Your task to perform on an android device: turn off translation in the chrome app Image 0: 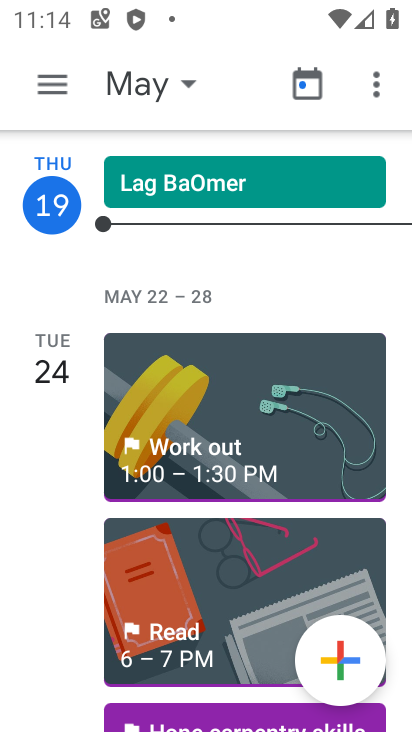
Step 0: press home button
Your task to perform on an android device: turn off translation in the chrome app Image 1: 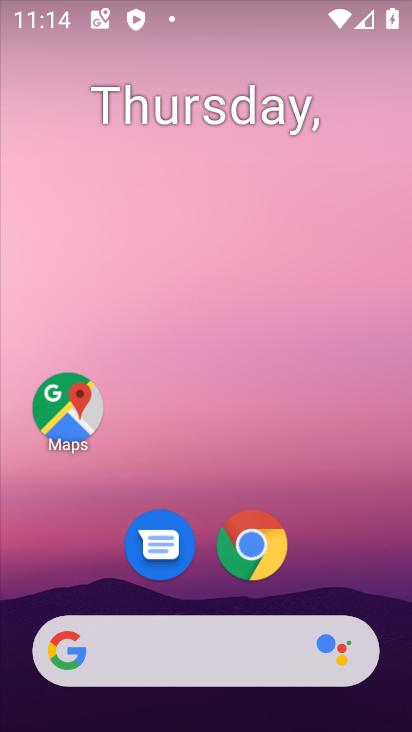
Step 1: drag from (205, 385) to (212, 115)
Your task to perform on an android device: turn off translation in the chrome app Image 2: 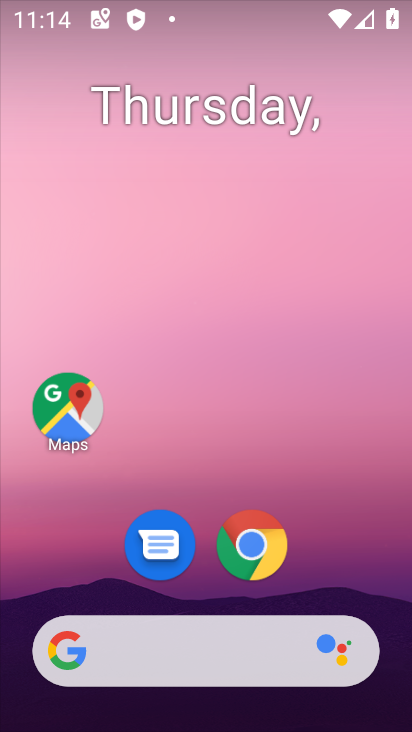
Step 2: drag from (188, 587) to (230, 108)
Your task to perform on an android device: turn off translation in the chrome app Image 3: 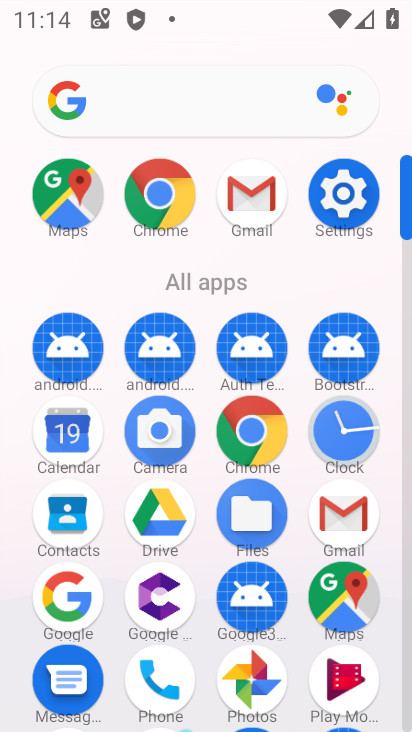
Step 3: click (78, 540)
Your task to perform on an android device: turn off translation in the chrome app Image 4: 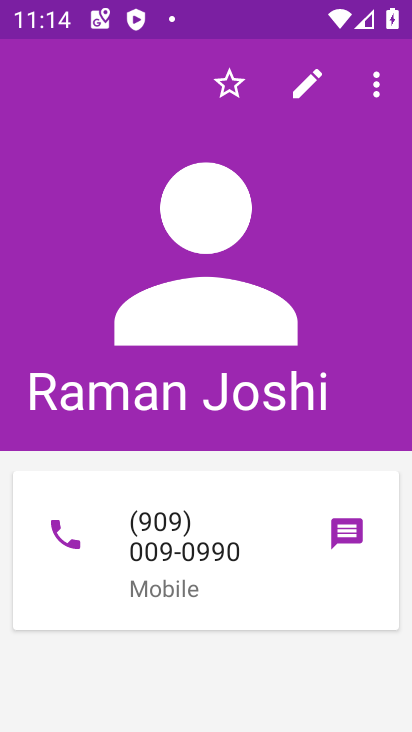
Step 4: click (386, 98)
Your task to perform on an android device: turn off translation in the chrome app Image 5: 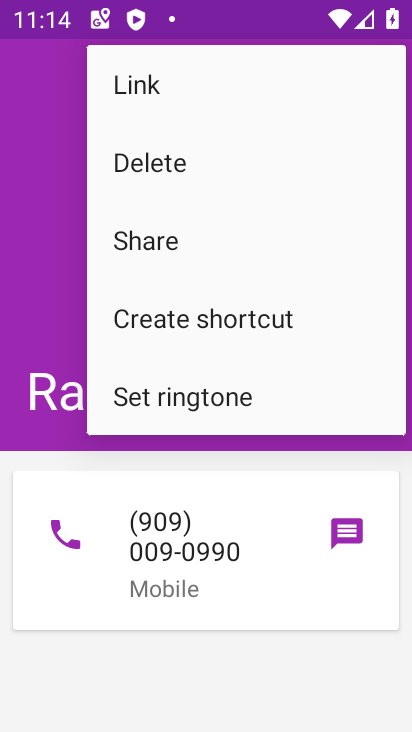
Step 5: press back button
Your task to perform on an android device: turn off translation in the chrome app Image 6: 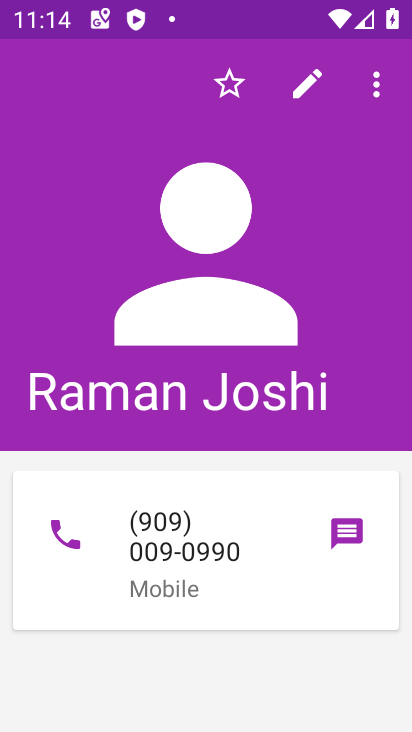
Step 6: press back button
Your task to perform on an android device: turn off translation in the chrome app Image 7: 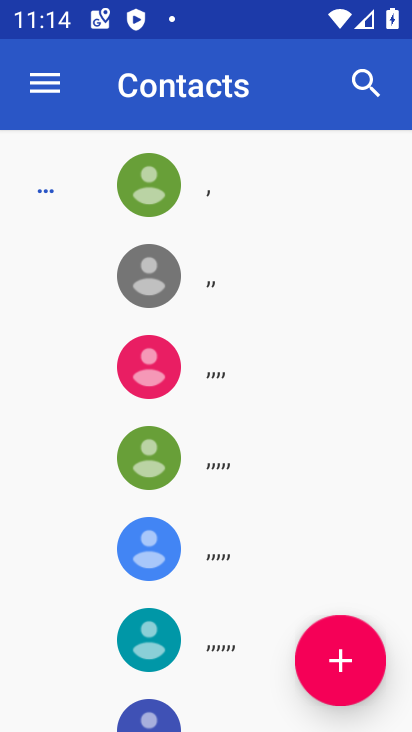
Step 7: click (338, 666)
Your task to perform on an android device: turn off translation in the chrome app Image 8: 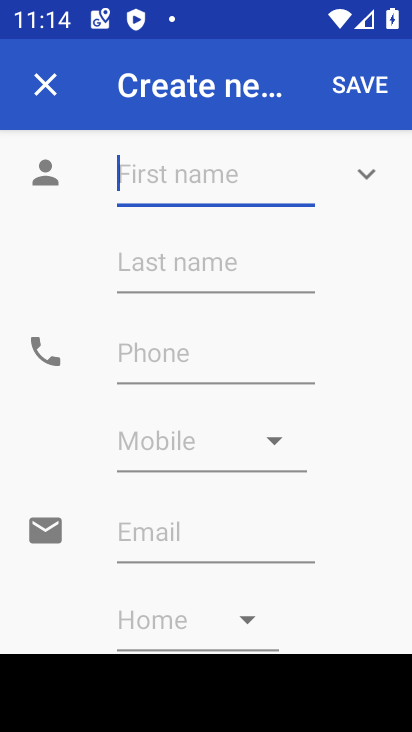
Step 8: click (230, 175)
Your task to perform on an android device: turn off translation in the chrome app Image 9: 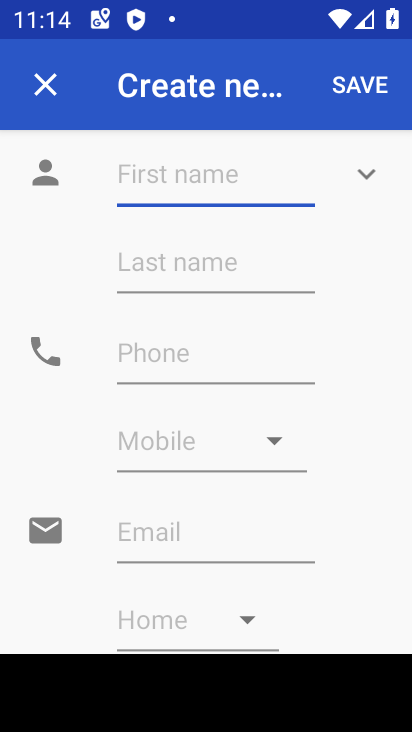
Step 9: type "Ajay"
Your task to perform on an android device: turn off translation in the chrome app Image 10: 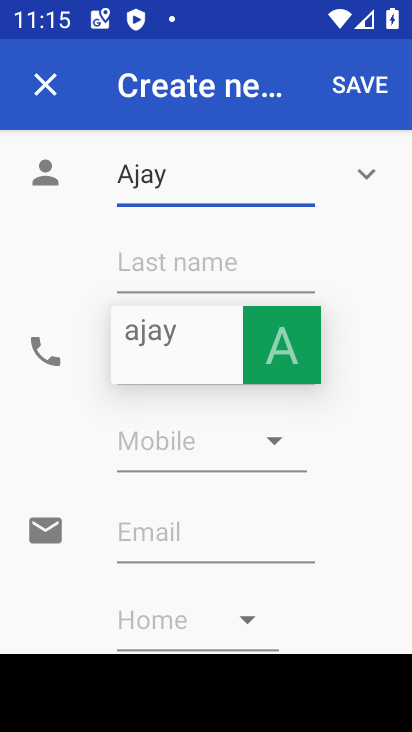
Step 10: click (281, 290)
Your task to perform on an android device: turn off translation in the chrome app Image 11: 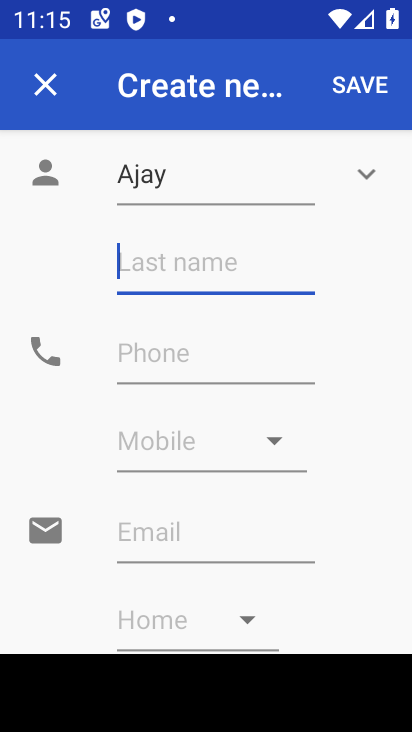
Step 11: type "Khoshla"
Your task to perform on an android device: turn off translation in the chrome app Image 12: 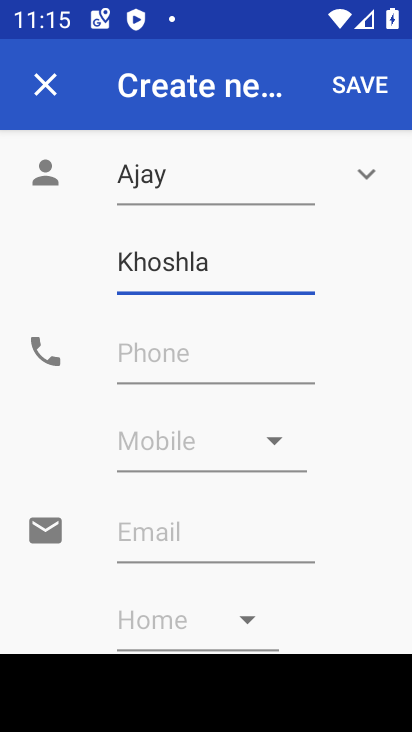
Step 12: click (203, 371)
Your task to perform on an android device: turn off translation in the chrome app Image 13: 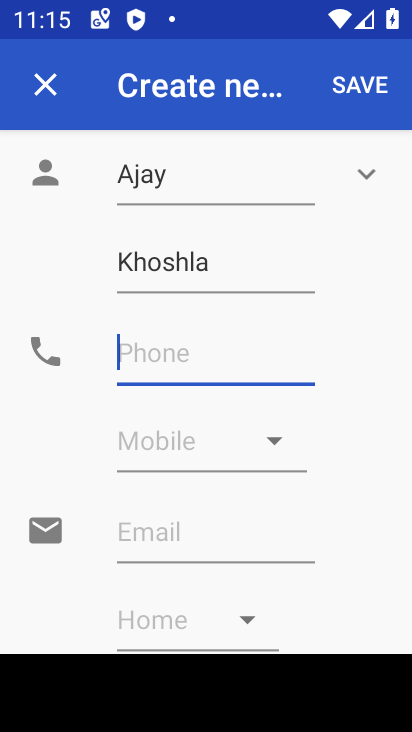
Step 13: type "8789878900"
Your task to perform on an android device: turn off translation in the chrome app Image 14: 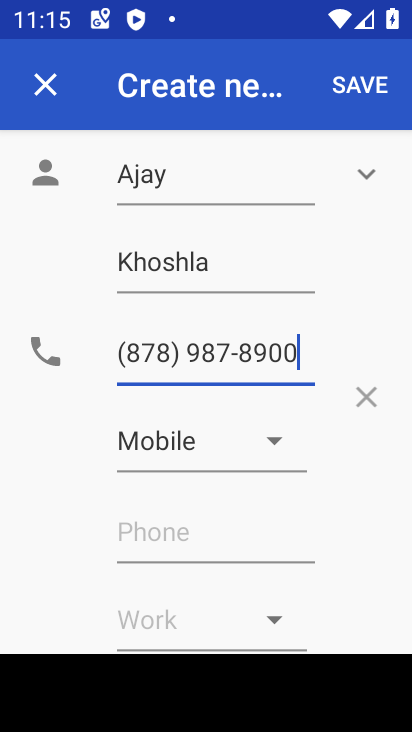
Step 14: click (361, 78)
Your task to perform on an android device: turn off translation in the chrome app Image 15: 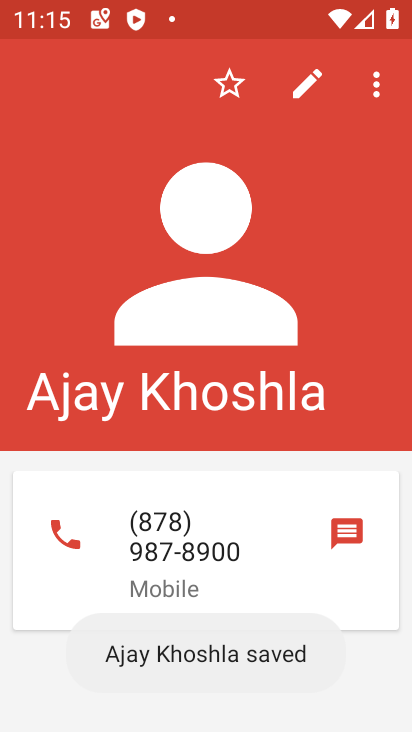
Step 15: task complete